Your task to perform on an android device: install app "Facebook" Image 0: 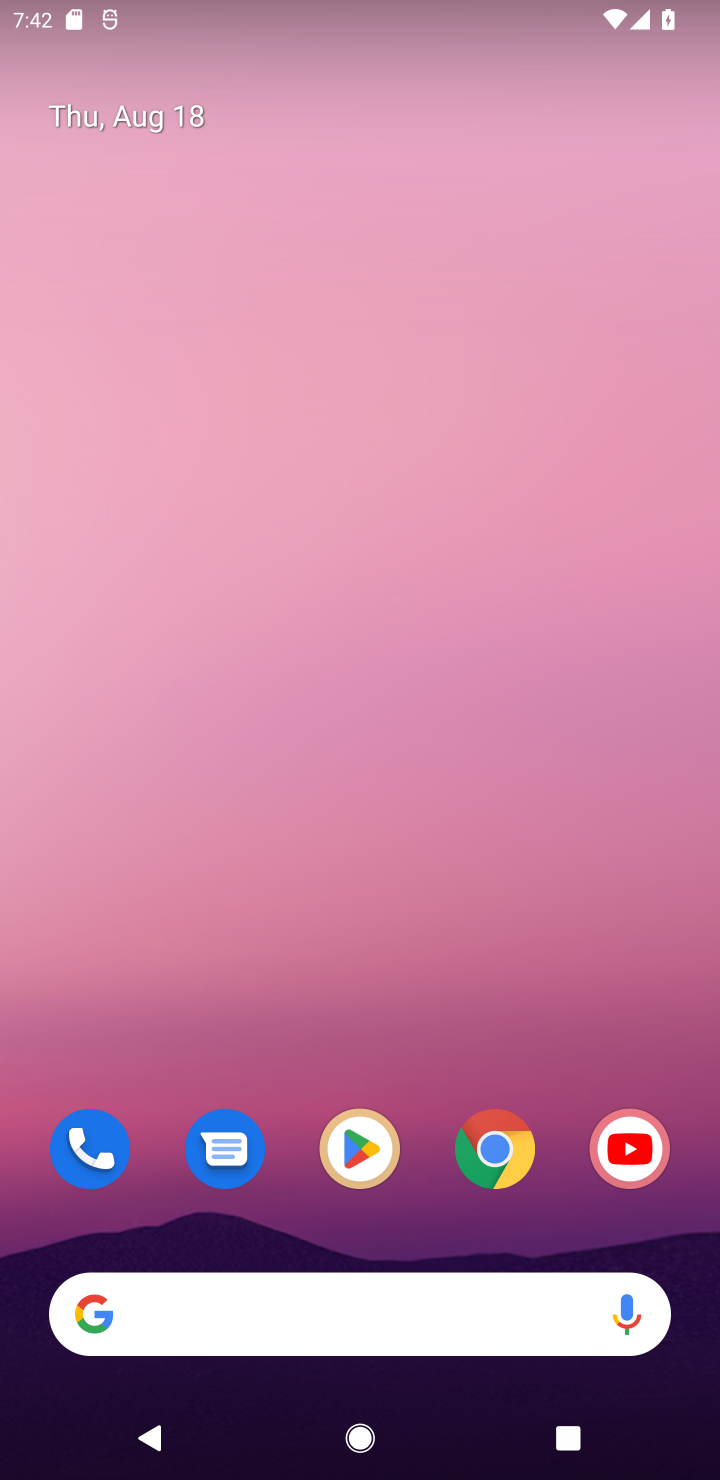
Step 0: drag from (667, 1220) to (248, 15)
Your task to perform on an android device: install app "Facebook" Image 1: 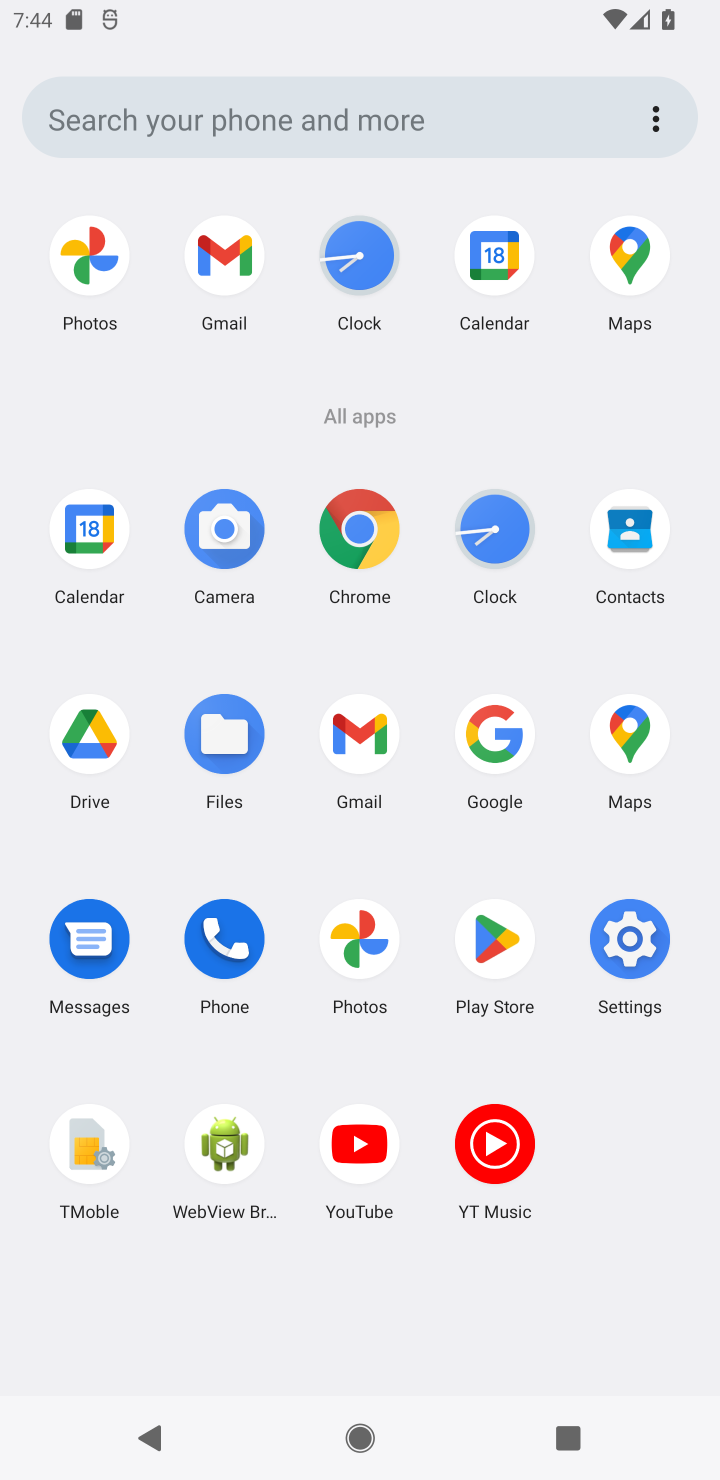
Step 1: click (498, 960)
Your task to perform on an android device: install app "Facebook" Image 2: 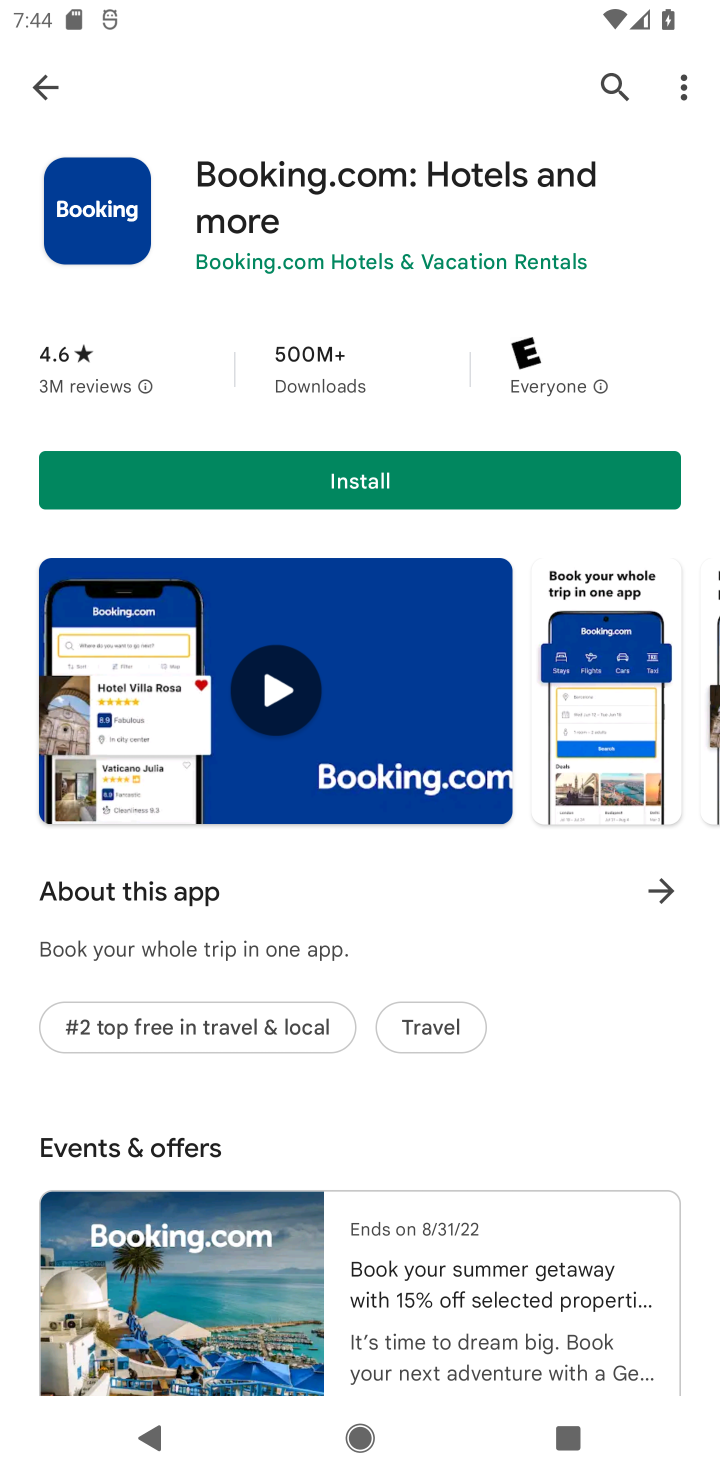
Step 2: press back button
Your task to perform on an android device: install app "Facebook" Image 3: 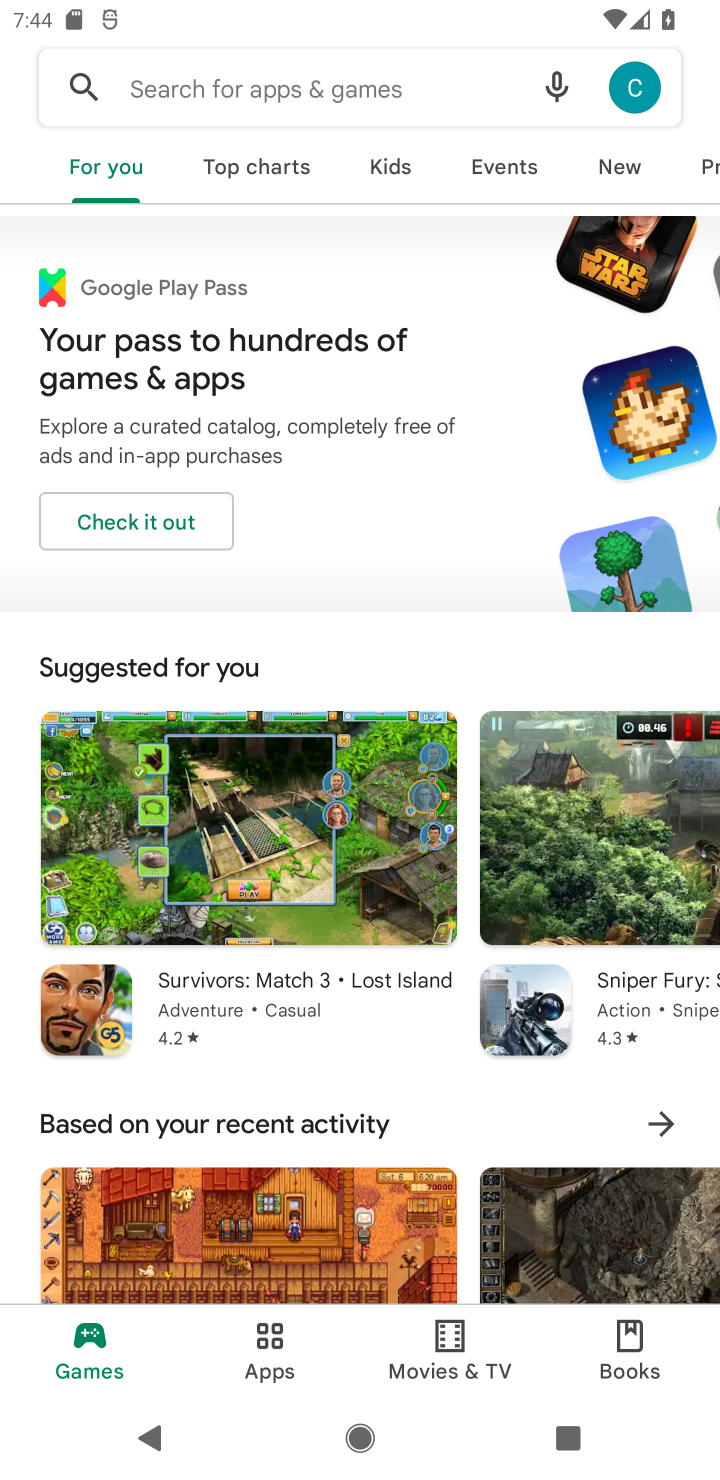
Step 3: click (226, 88)
Your task to perform on an android device: install app "Facebook" Image 4: 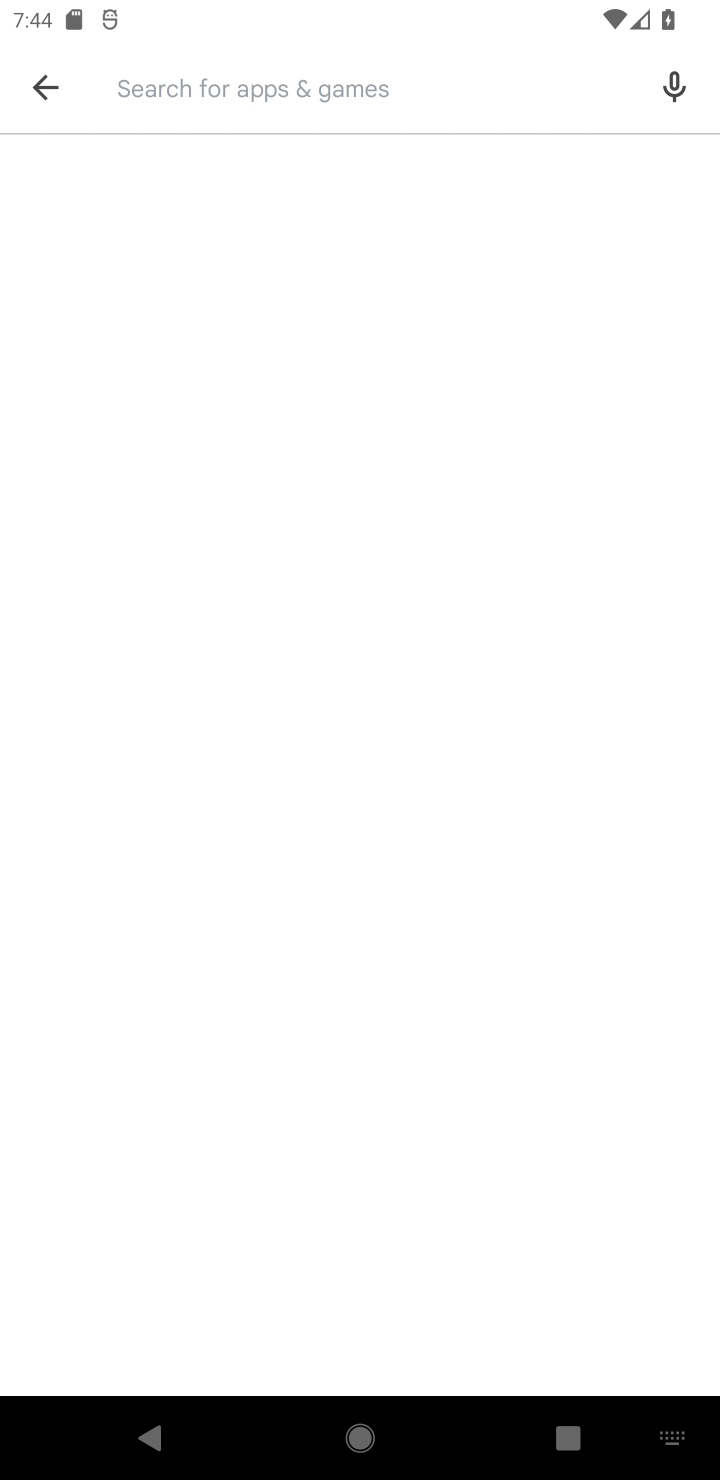
Step 4: type "Facebook"
Your task to perform on an android device: install app "Facebook" Image 5: 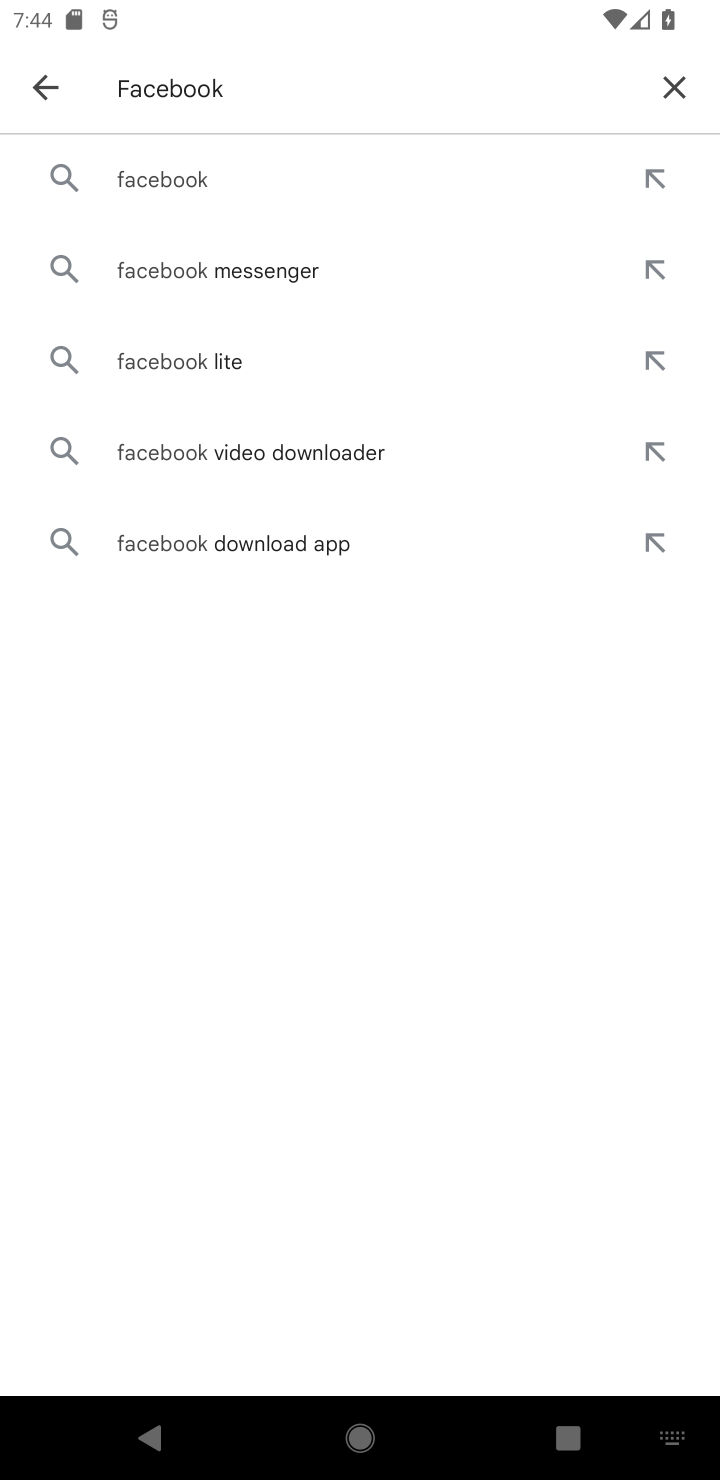
Step 5: click (196, 205)
Your task to perform on an android device: install app "Facebook" Image 6: 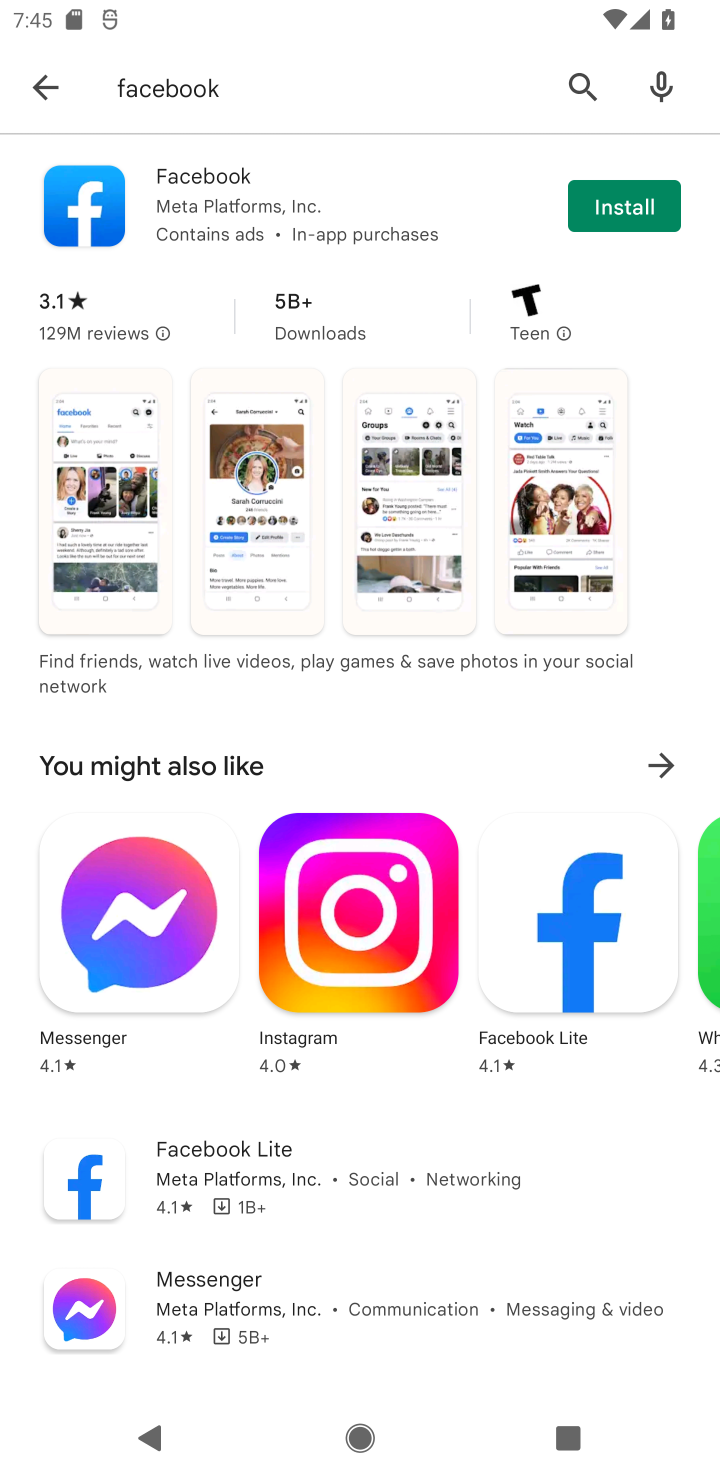
Step 6: click (609, 208)
Your task to perform on an android device: install app "Facebook" Image 7: 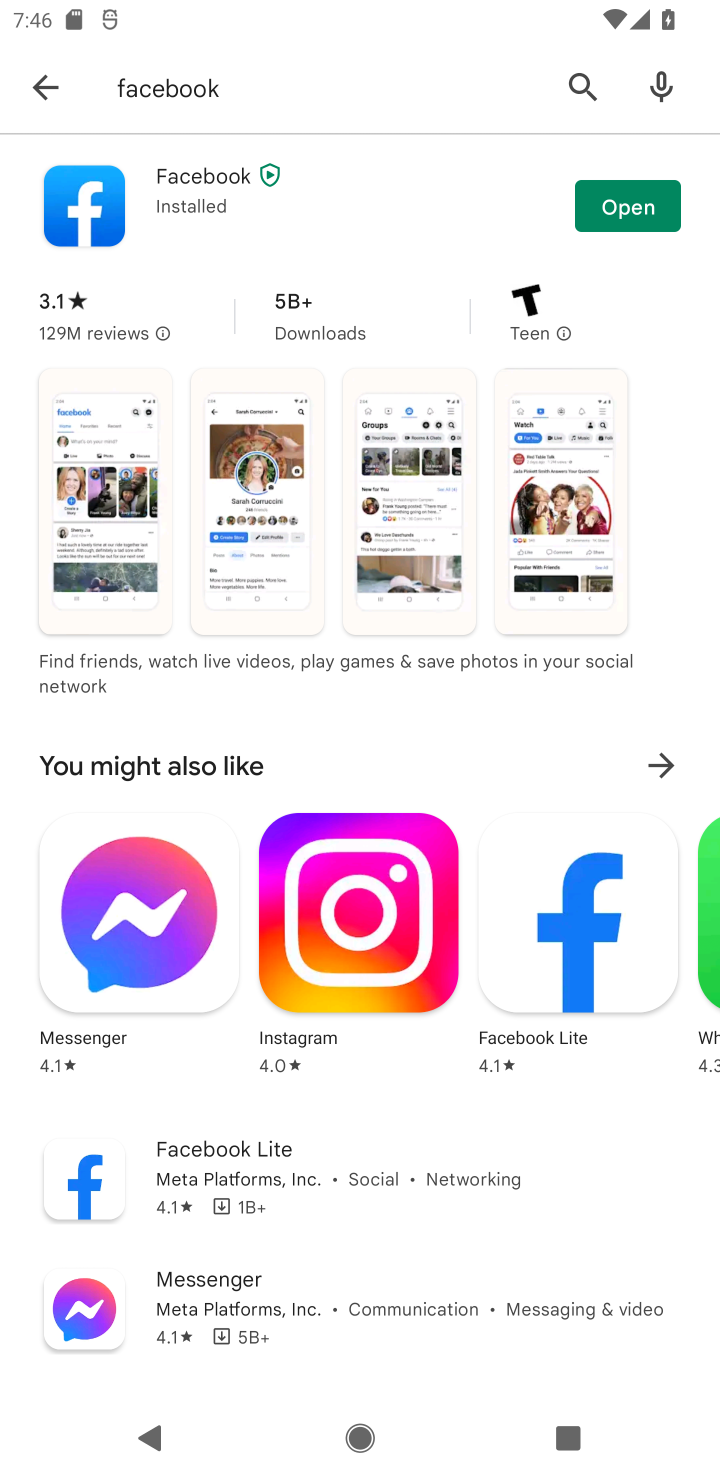
Step 7: task complete